Your task to perform on an android device: empty trash in the gmail app Image 0: 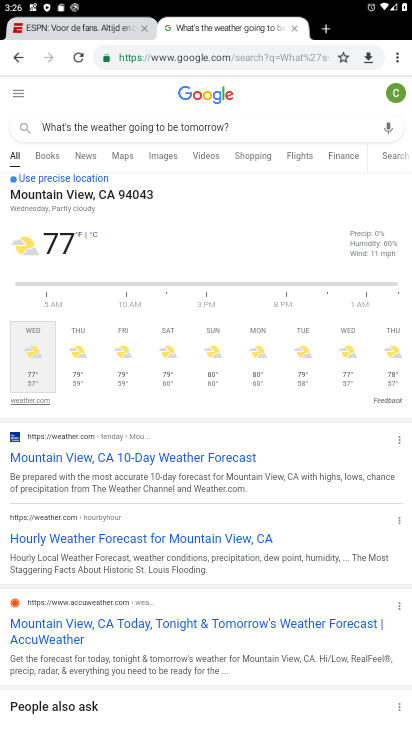
Step 0: press home button
Your task to perform on an android device: empty trash in the gmail app Image 1: 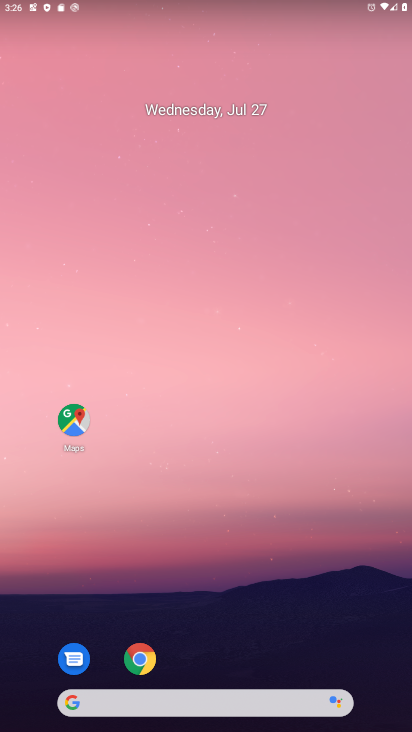
Step 1: drag from (248, 660) to (197, 296)
Your task to perform on an android device: empty trash in the gmail app Image 2: 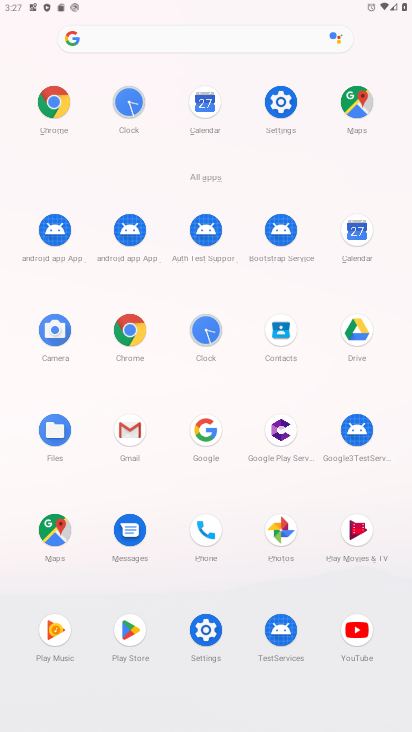
Step 2: click (130, 432)
Your task to perform on an android device: empty trash in the gmail app Image 3: 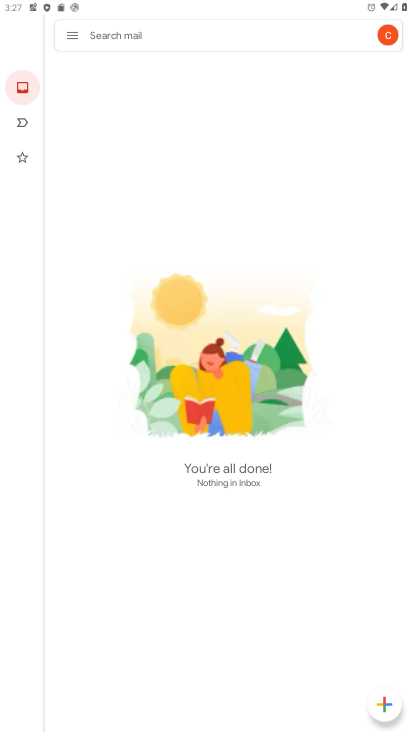
Step 3: click (69, 43)
Your task to perform on an android device: empty trash in the gmail app Image 4: 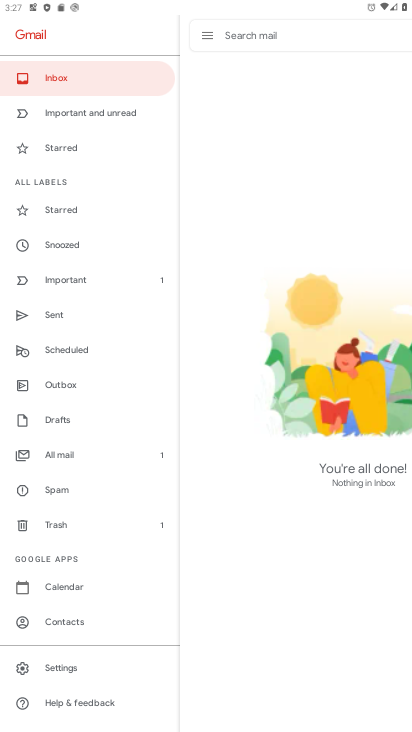
Step 4: click (70, 520)
Your task to perform on an android device: empty trash in the gmail app Image 5: 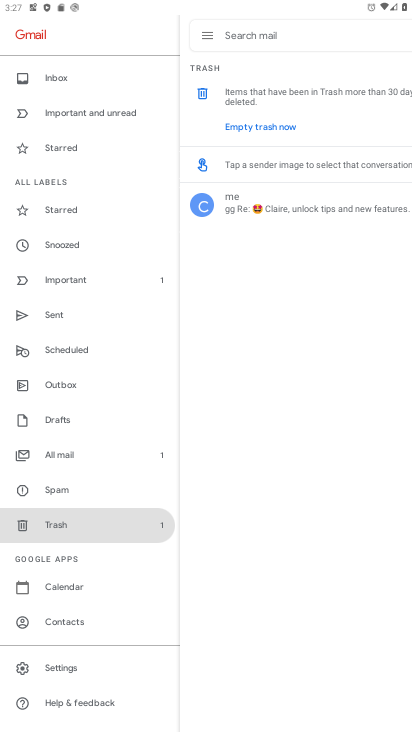
Step 5: click (196, 43)
Your task to perform on an android device: empty trash in the gmail app Image 6: 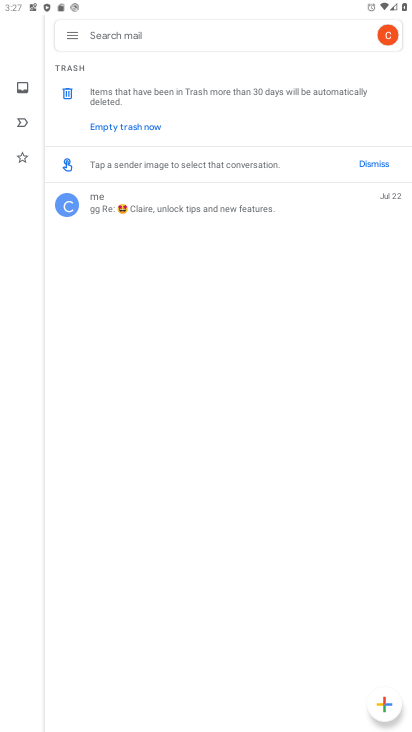
Step 6: click (149, 121)
Your task to perform on an android device: empty trash in the gmail app Image 7: 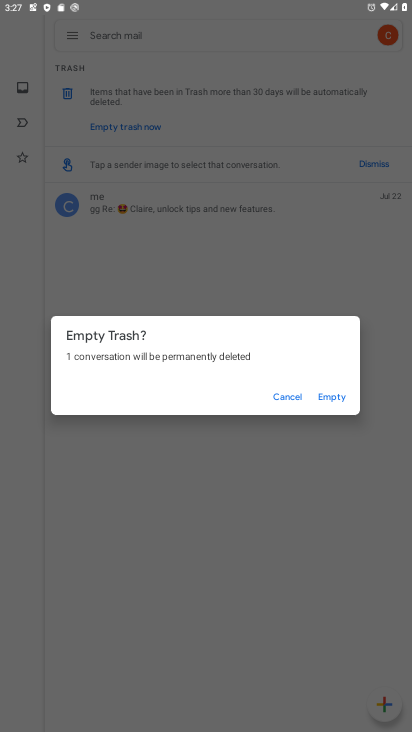
Step 7: click (344, 396)
Your task to perform on an android device: empty trash in the gmail app Image 8: 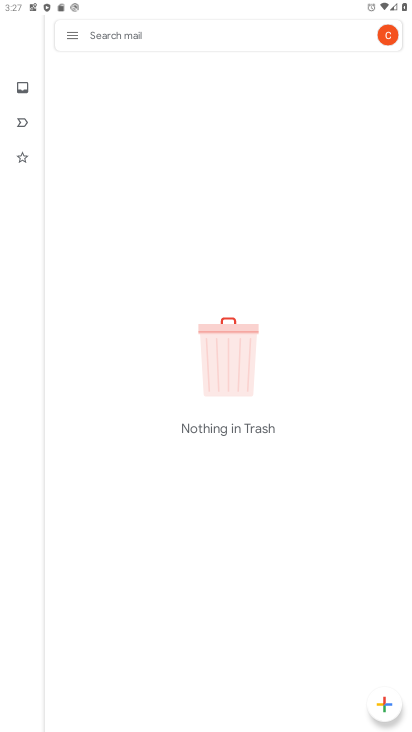
Step 8: task complete